Your task to perform on an android device: toggle notifications settings in the gmail app Image 0: 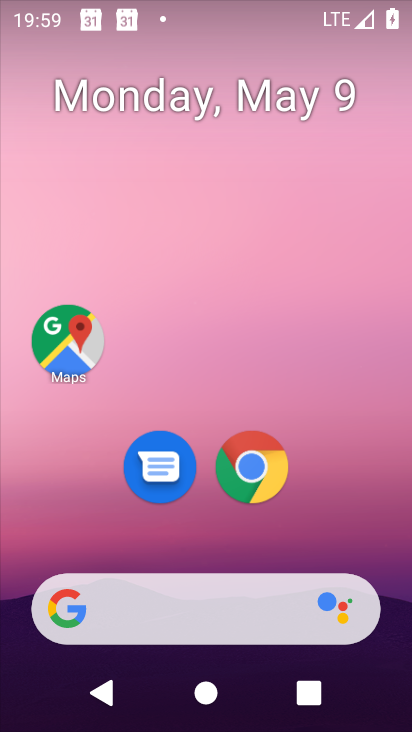
Step 0: drag from (350, 524) to (265, 137)
Your task to perform on an android device: toggle notifications settings in the gmail app Image 1: 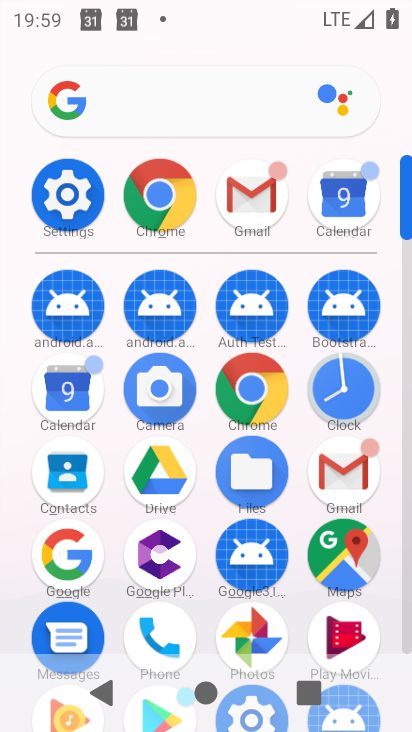
Step 1: click (263, 203)
Your task to perform on an android device: toggle notifications settings in the gmail app Image 2: 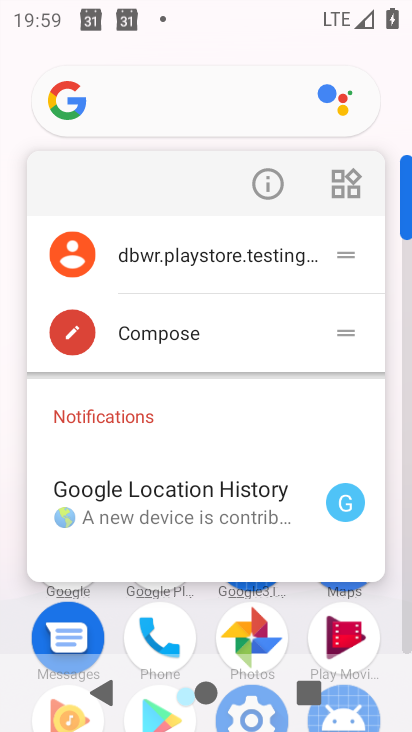
Step 2: click (404, 80)
Your task to perform on an android device: toggle notifications settings in the gmail app Image 3: 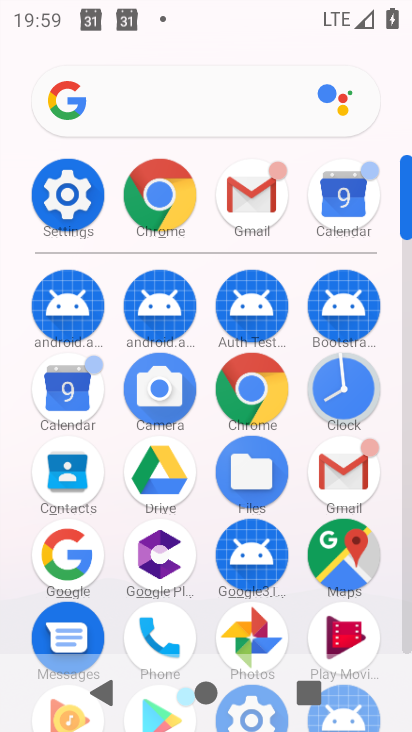
Step 3: click (259, 194)
Your task to perform on an android device: toggle notifications settings in the gmail app Image 4: 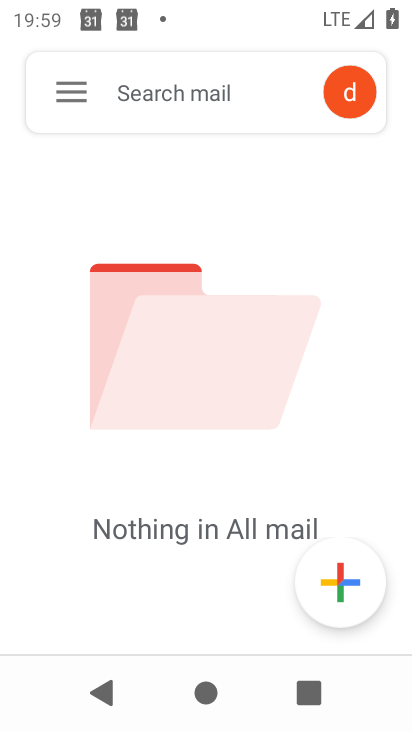
Step 4: click (72, 95)
Your task to perform on an android device: toggle notifications settings in the gmail app Image 5: 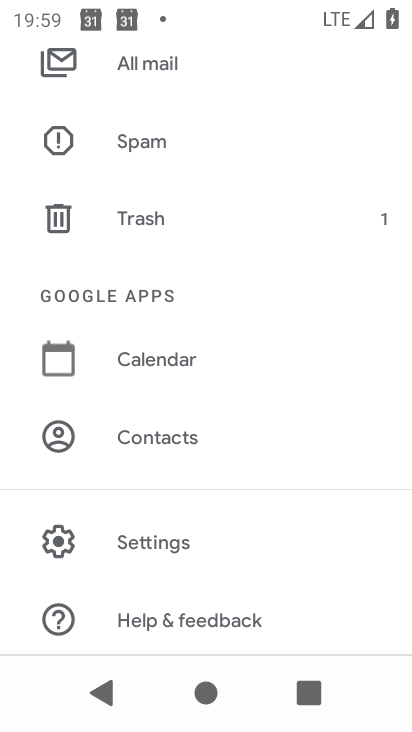
Step 5: click (189, 549)
Your task to perform on an android device: toggle notifications settings in the gmail app Image 6: 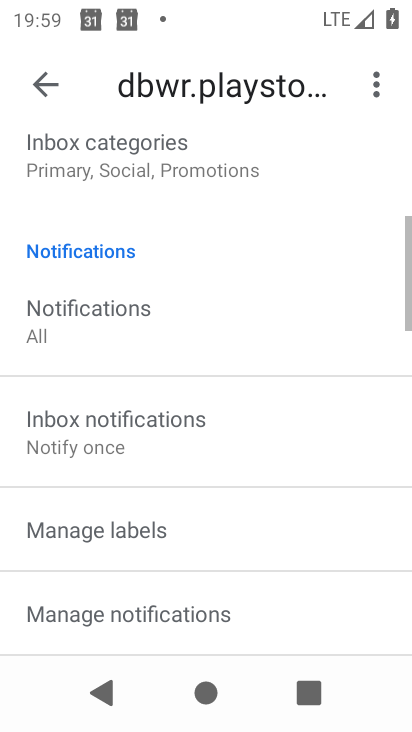
Step 6: drag from (189, 549) to (166, 241)
Your task to perform on an android device: toggle notifications settings in the gmail app Image 7: 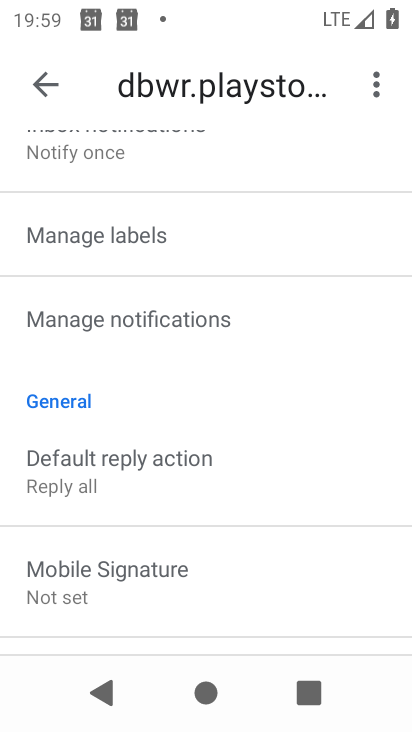
Step 7: click (139, 320)
Your task to perform on an android device: toggle notifications settings in the gmail app Image 8: 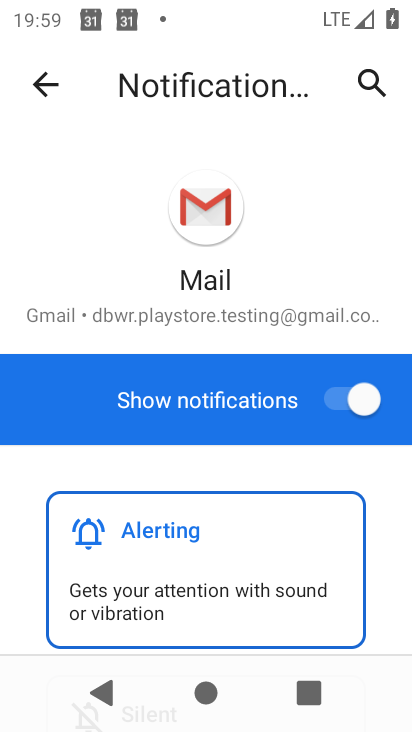
Step 8: click (366, 394)
Your task to perform on an android device: toggle notifications settings in the gmail app Image 9: 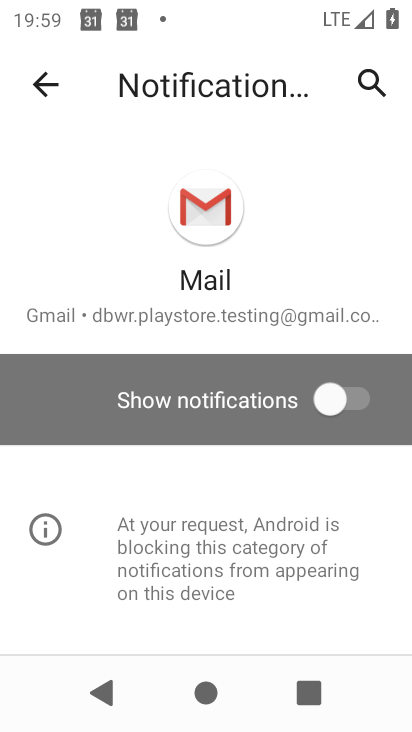
Step 9: task complete